Your task to perform on an android device: Go to Android settings Image 0: 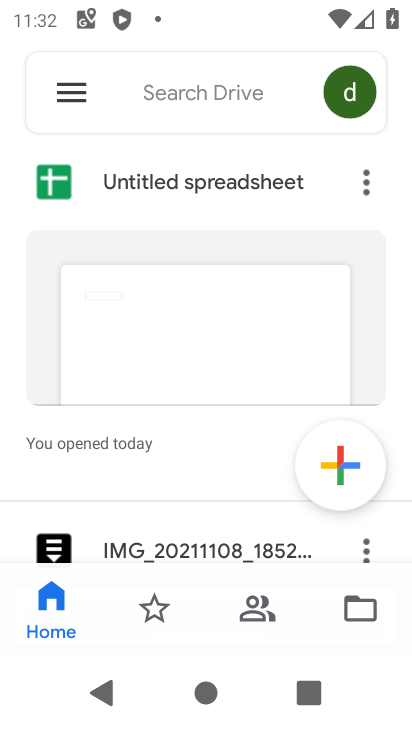
Step 0: press home button
Your task to perform on an android device: Go to Android settings Image 1: 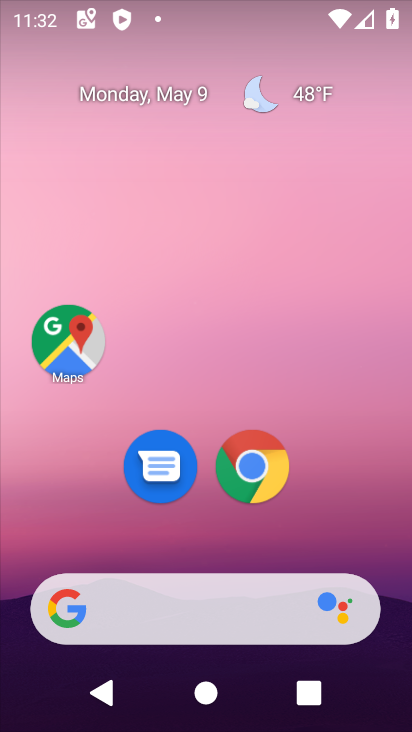
Step 1: click (256, 462)
Your task to perform on an android device: Go to Android settings Image 2: 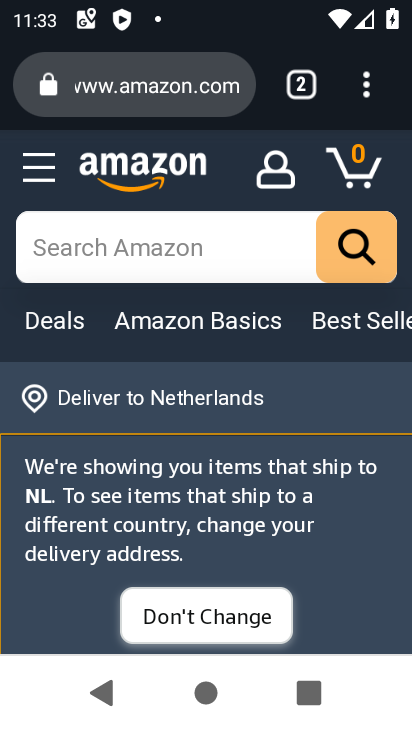
Step 2: press home button
Your task to perform on an android device: Go to Android settings Image 3: 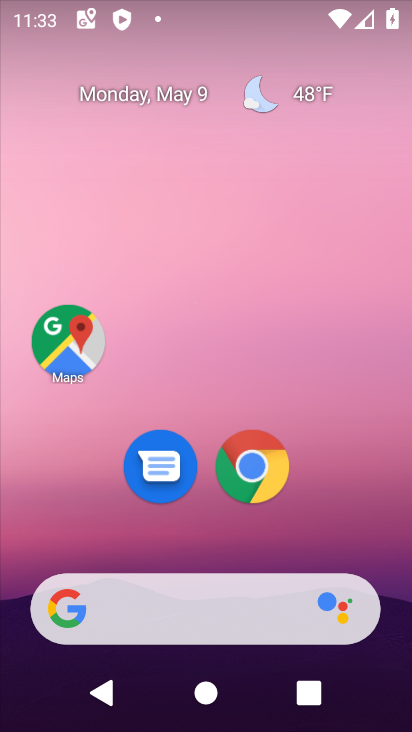
Step 3: drag from (392, 589) to (362, 8)
Your task to perform on an android device: Go to Android settings Image 4: 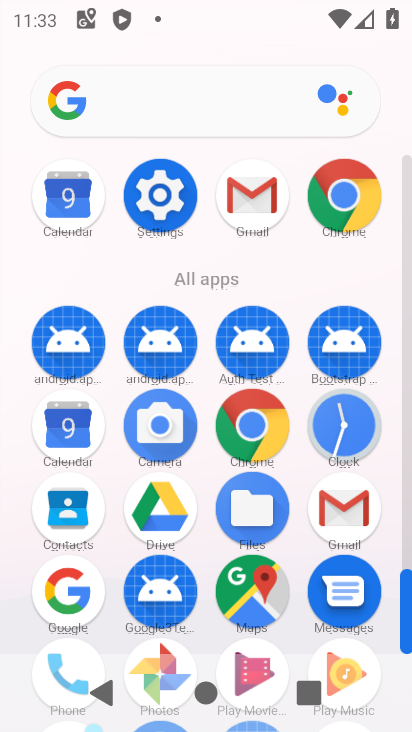
Step 4: click (407, 555)
Your task to perform on an android device: Go to Android settings Image 5: 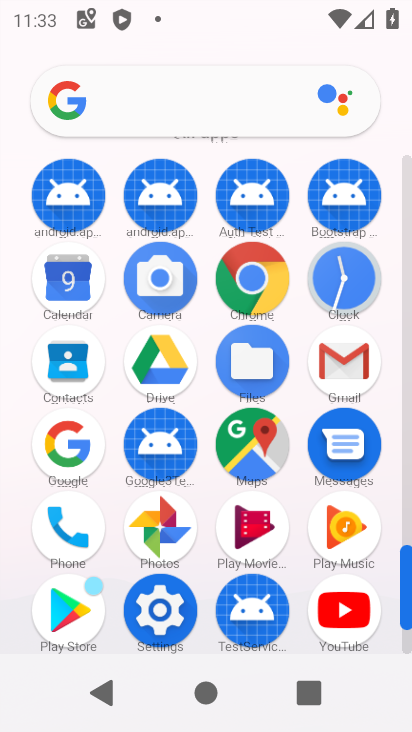
Step 5: click (160, 611)
Your task to perform on an android device: Go to Android settings Image 6: 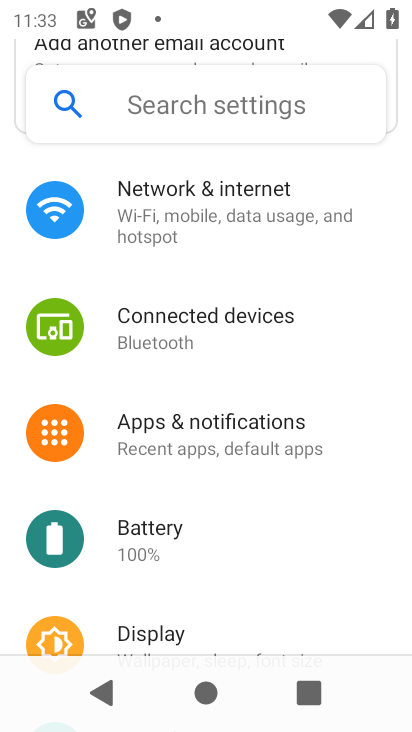
Step 6: drag from (260, 609) to (331, 177)
Your task to perform on an android device: Go to Android settings Image 7: 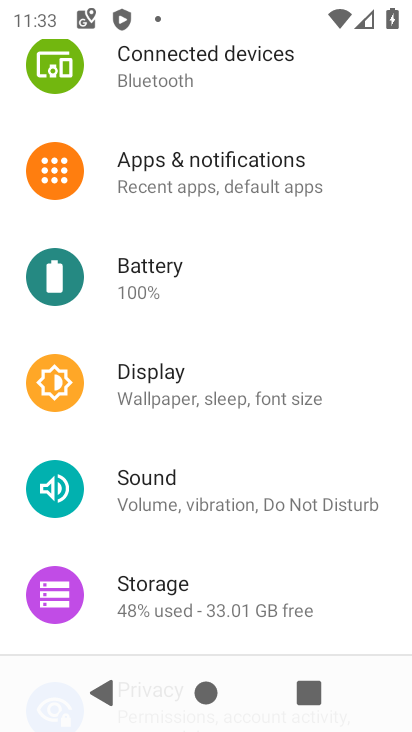
Step 7: drag from (324, 572) to (357, 92)
Your task to perform on an android device: Go to Android settings Image 8: 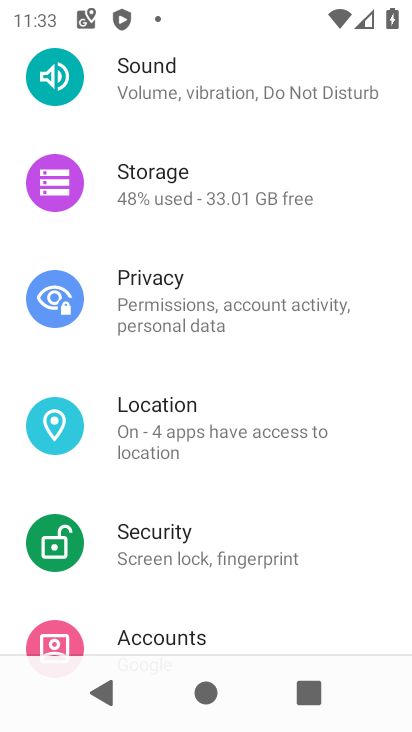
Step 8: drag from (322, 607) to (349, 76)
Your task to perform on an android device: Go to Android settings Image 9: 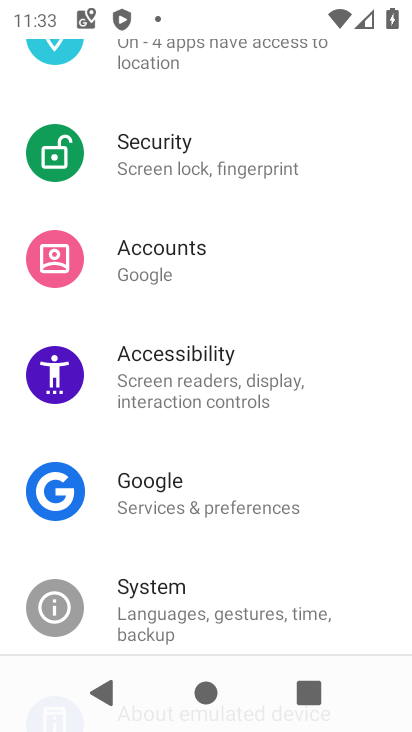
Step 9: drag from (320, 556) to (332, 75)
Your task to perform on an android device: Go to Android settings Image 10: 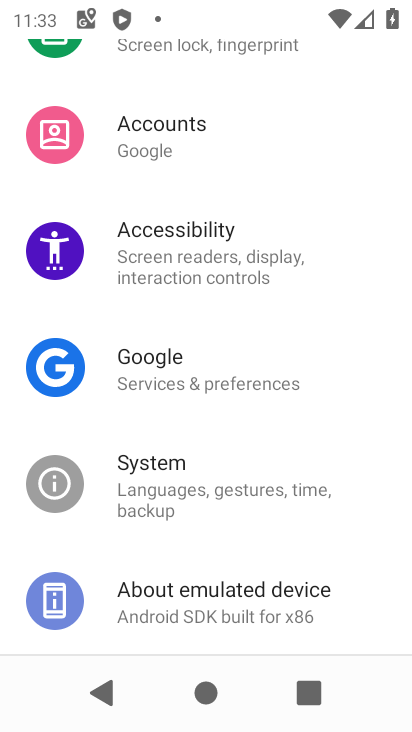
Step 10: click (136, 598)
Your task to perform on an android device: Go to Android settings Image 11: 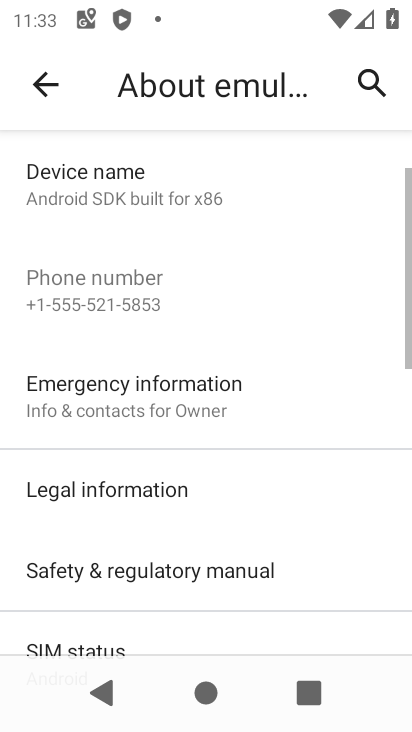
Step 11: task complete